Your task to perform on an android device: check google app version Image 0: 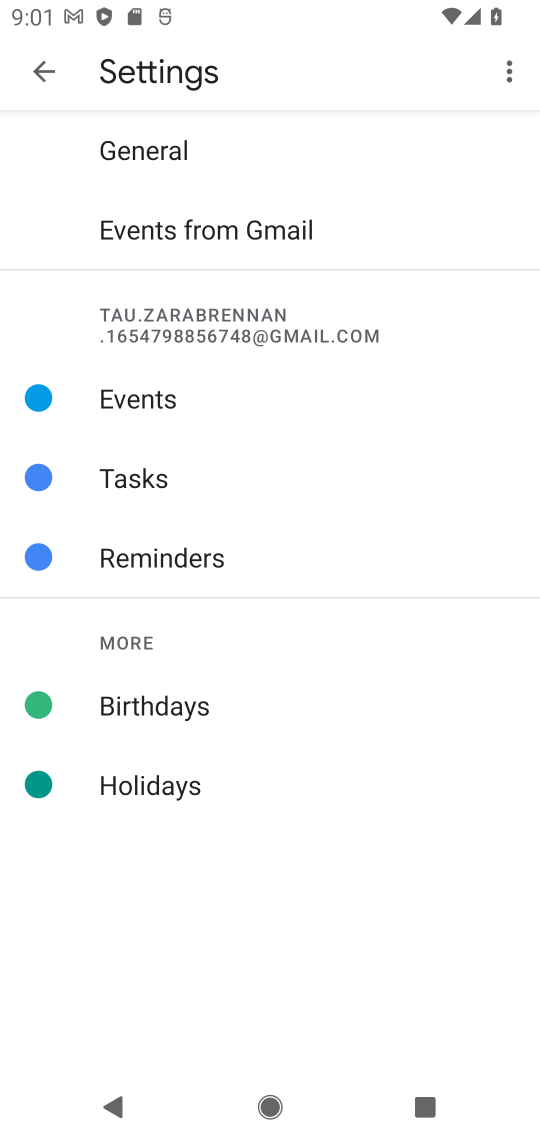
Step 0: press home button
Your task to perform on an android device: check google app version Image 1: 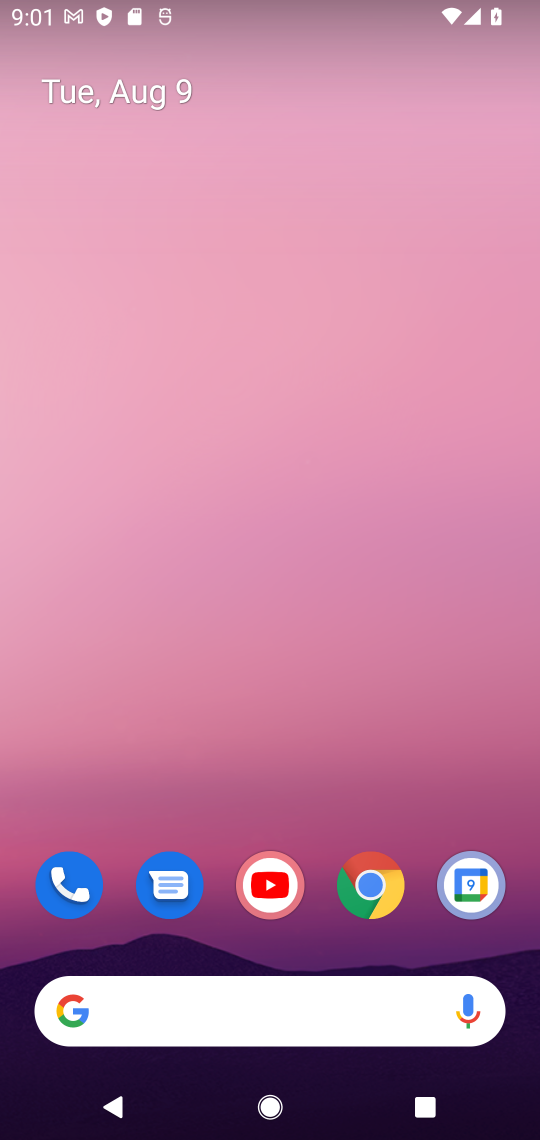
Step 1: drag from (276, 819) to (282, 336)
Your task to perform on an android device: check google app version Image 2: 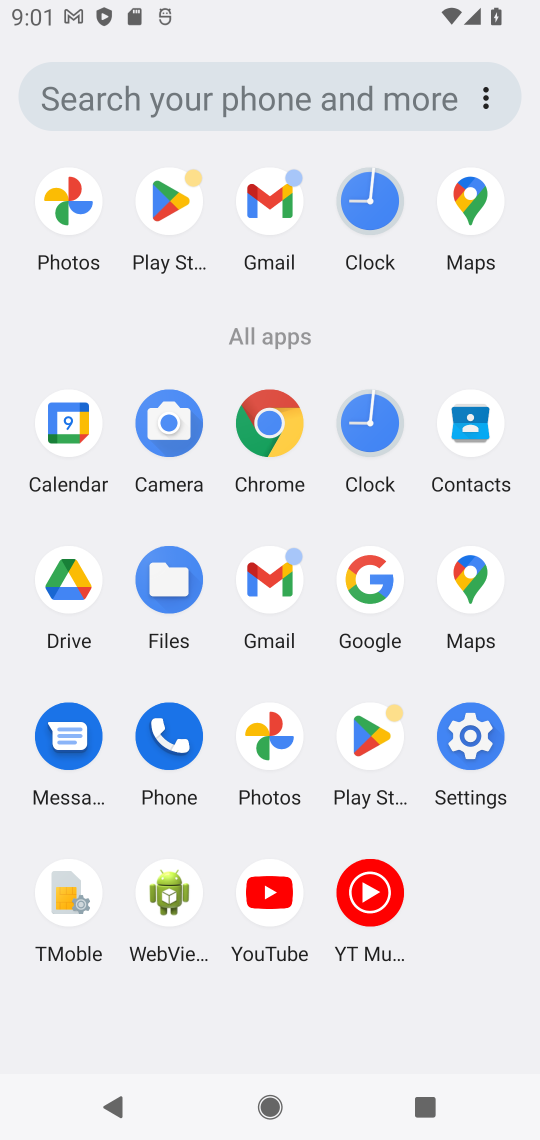
Step 2: click (369, 571)
Your task to perform on an android device: check google app version Image 3: 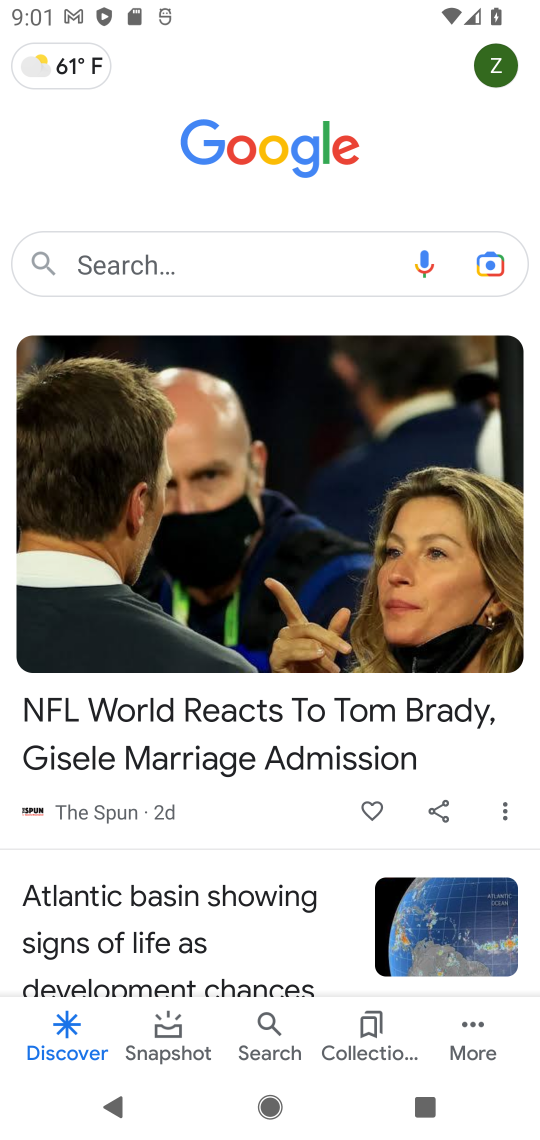
Step 3: click (483, 1051)
Your task to perform on an android device: check google app version Image 4: 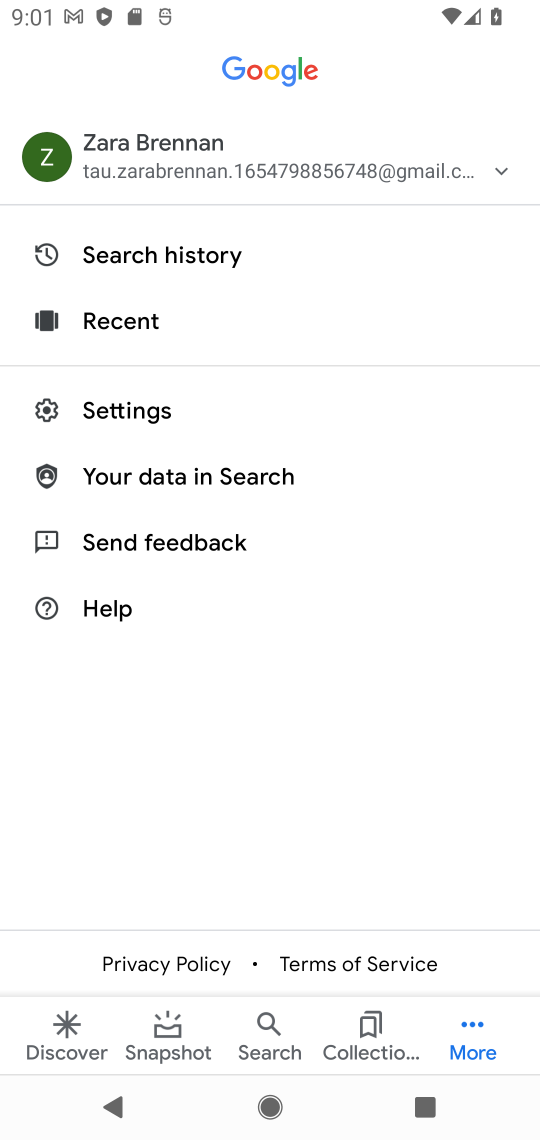
Step 4: click (138, 419)
Your task to perform on an android device: check google app version Image 5: 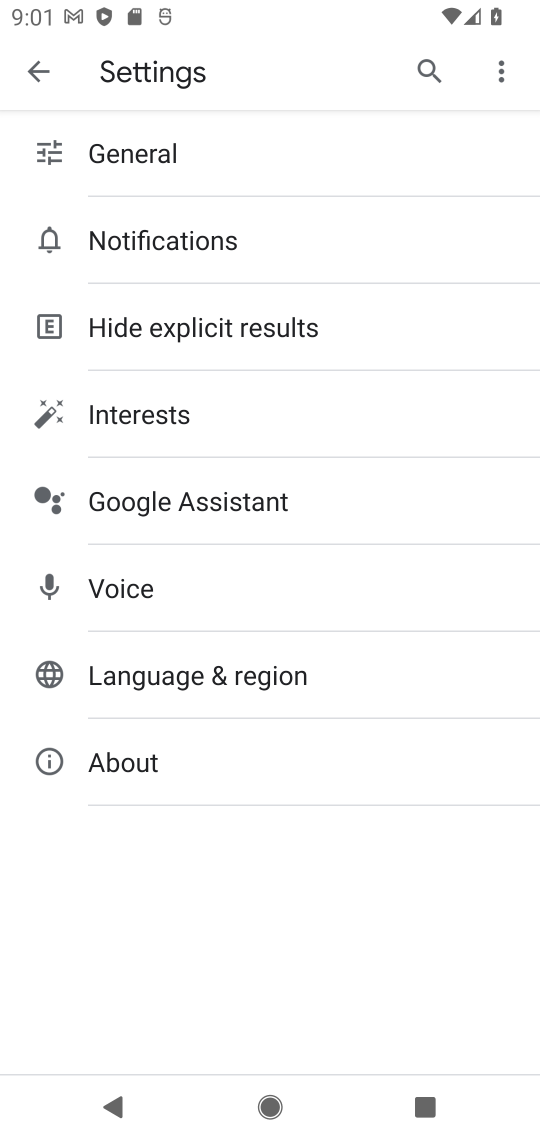
Step 5: click (129, 776)
Your task to perform on an android device: check google app version Image 6: 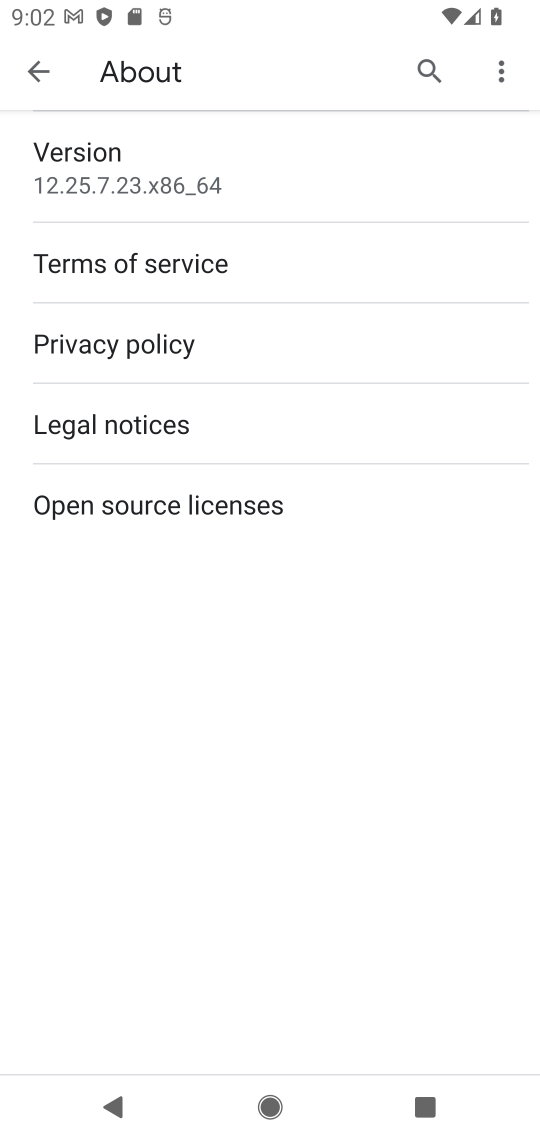
Step 6: click (380, 151)
Your task to perform on an android device: check google app version Image 7: 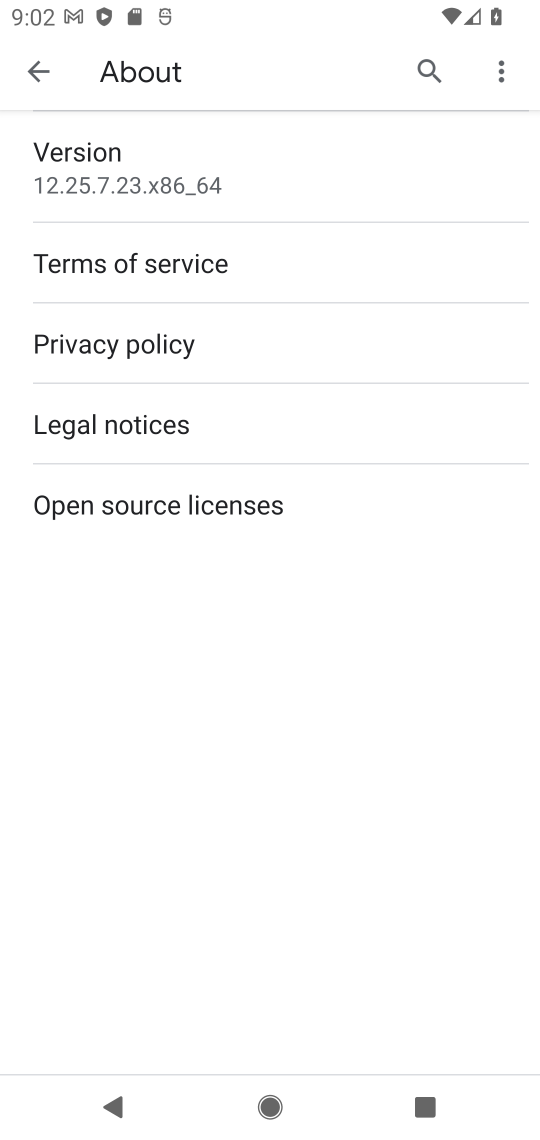
Step 7: click (198, 195)
Your task to perform on an android device: check google app version Image 8: 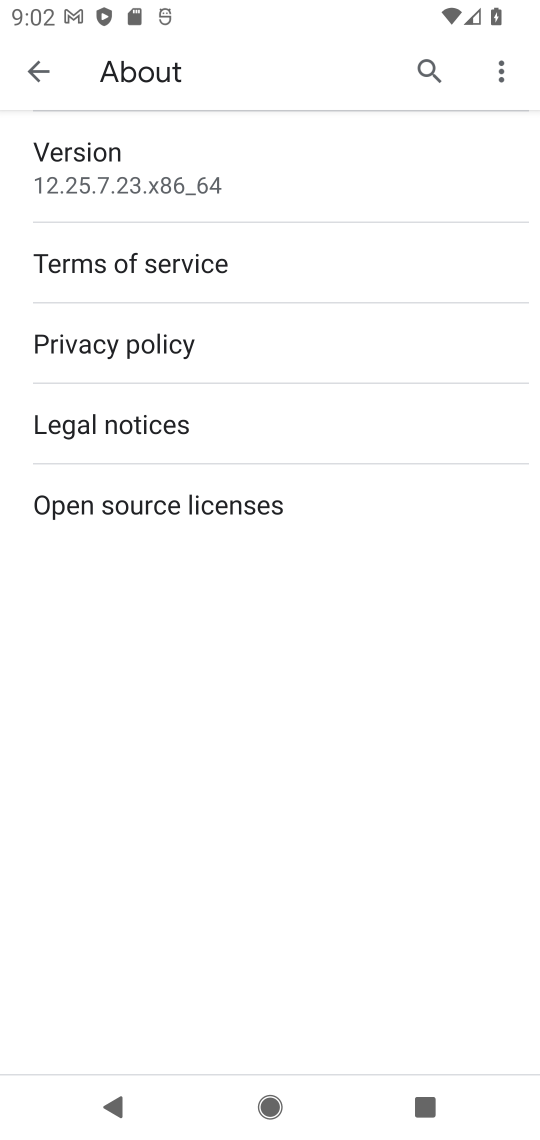
Step 8: task complete